Your task to perform on an android device: check google app version Image 0: 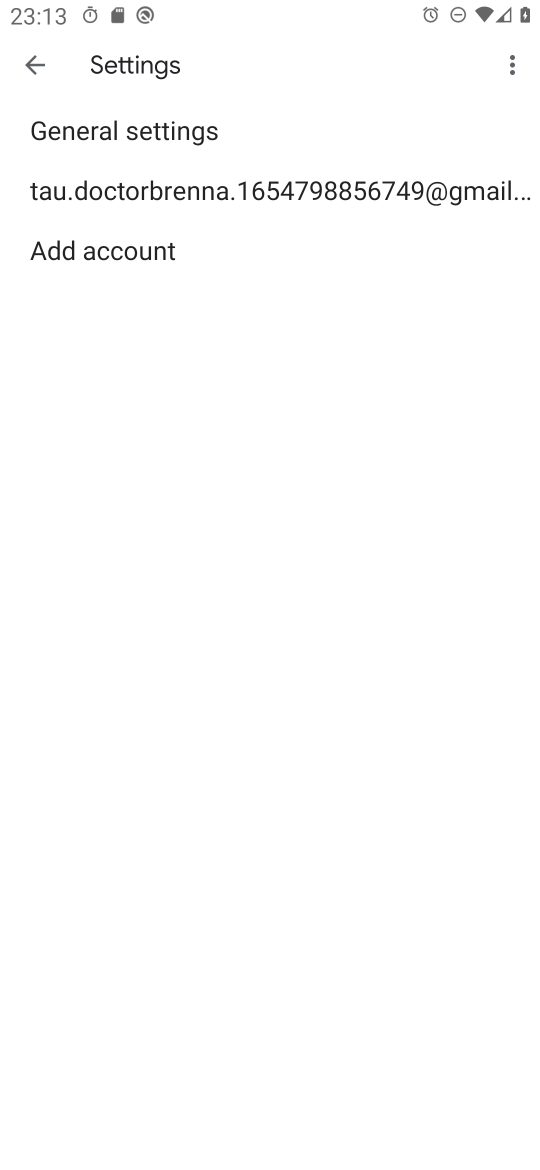
Step 0: press home button
Your task to perform on an android device: check google app version Image 1: 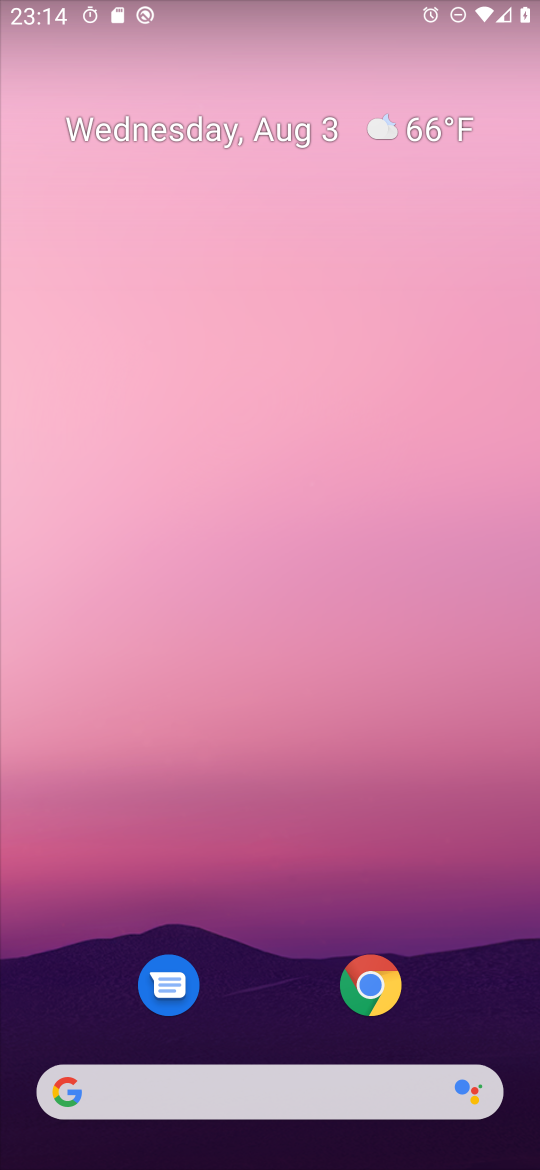
Step 1: drag from (270, 941) to (281, 247)
Your task to perform on an android device: check google app version Image 2: 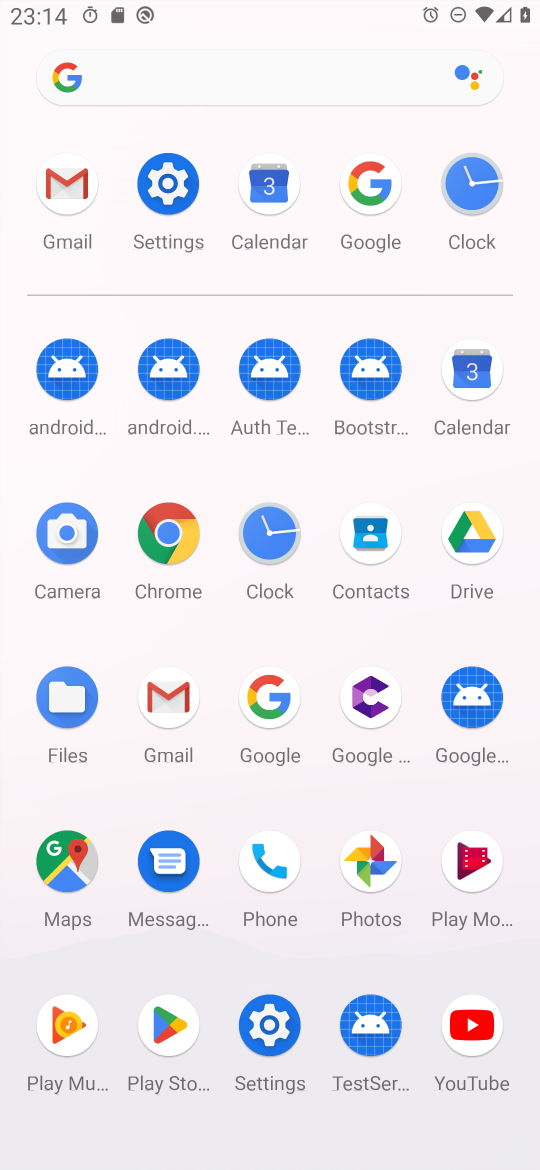
Step 2: click (376, 181)
Your task to perform on an android device: check google app version Image 3: 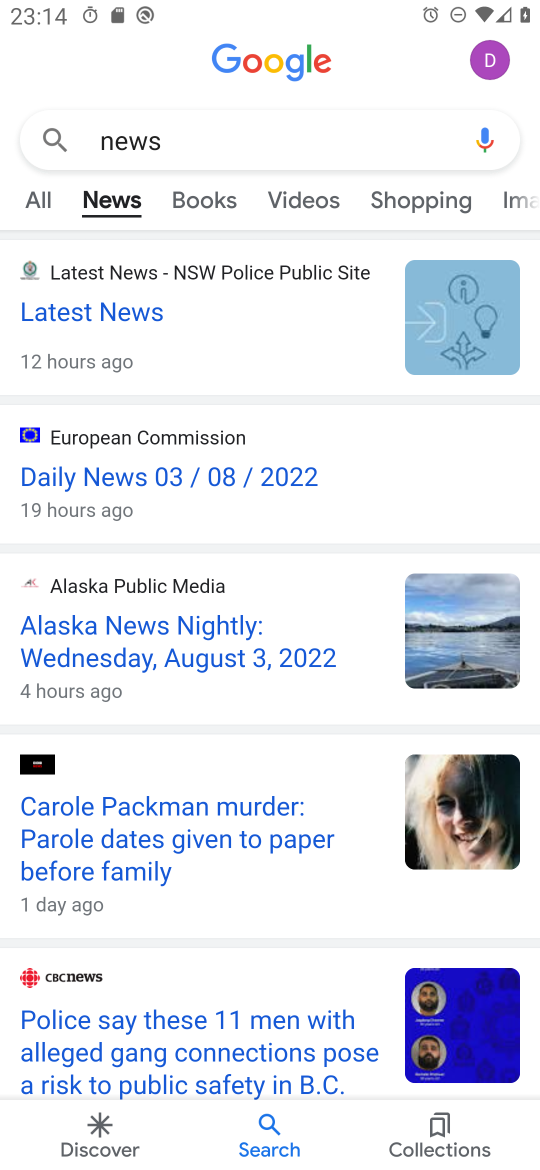
Step 3: click (483, 70)
Your task to perform on an android device: check google app version Image 4: 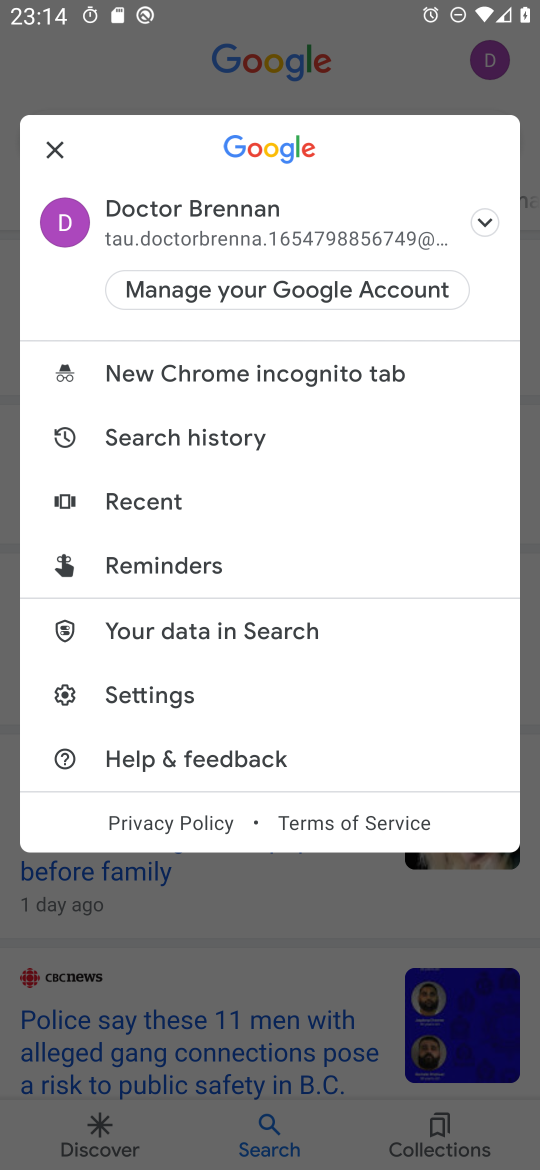
Step 4: click (139, 694)
Your task to perform on an android device: check google app version Image 5: 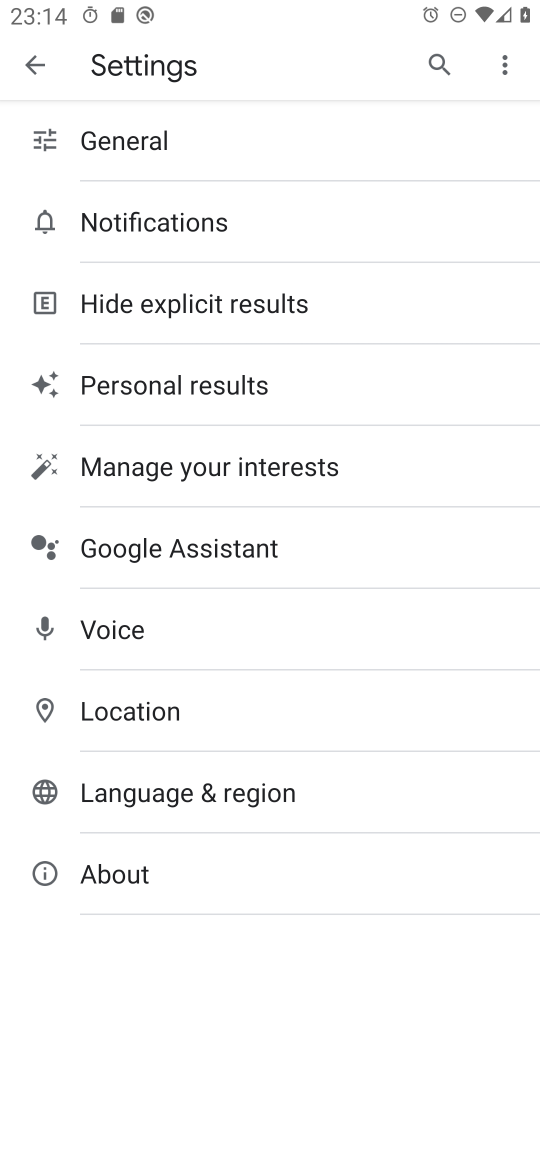
Step 5: click (89, 878)
Your task to perform on an android device: check google app version Image 6: 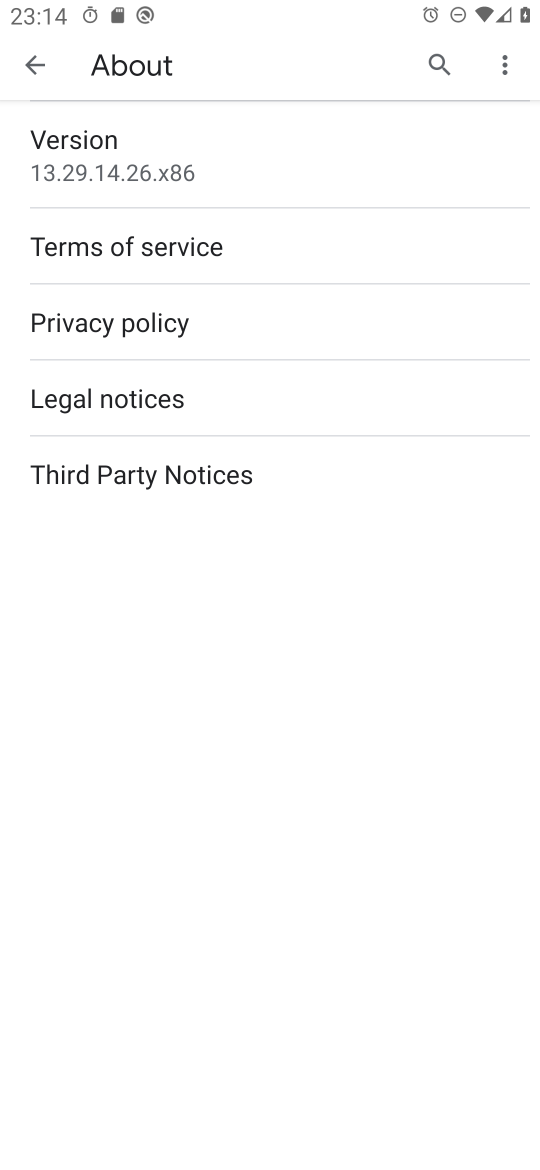
Step 6: click (137, 164)
Your task to perform on an android device: check google app version Image 7: 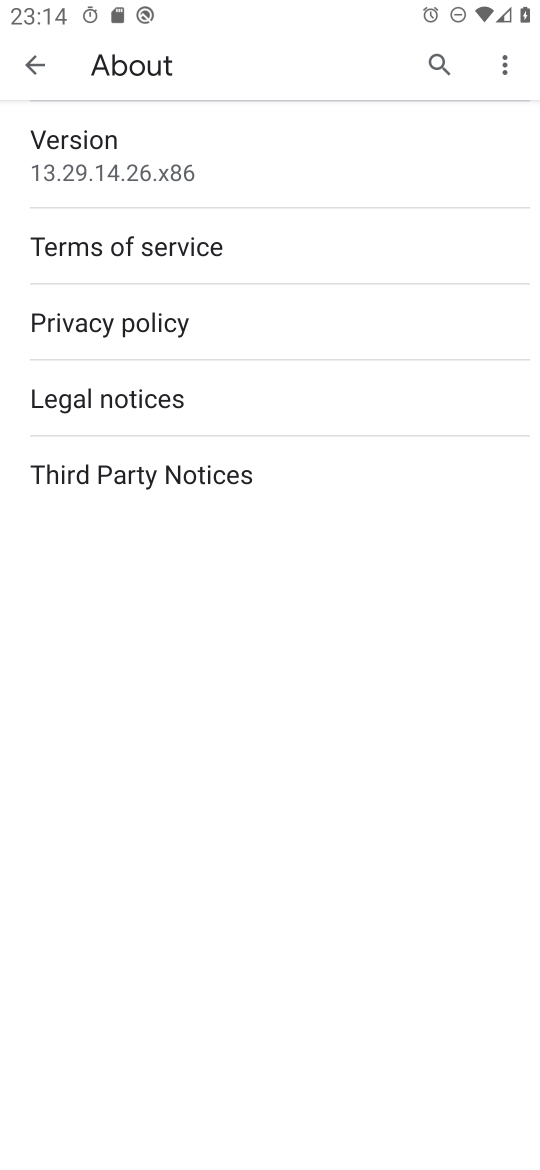
Step 7: task complete